Your task to perform on an android device: Search for pizza restaurants on Maps Image 0: 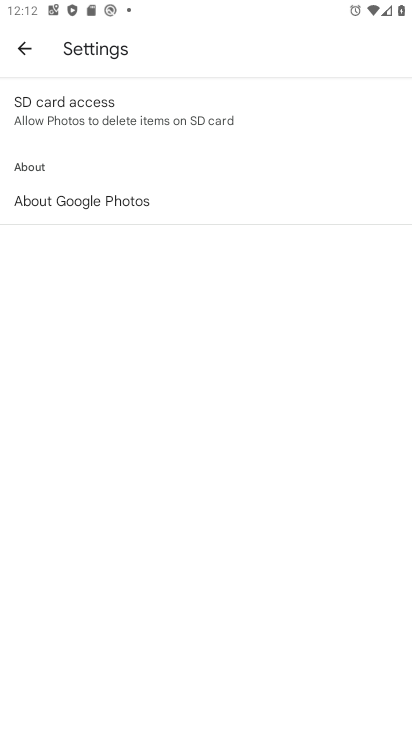
Step 0: press home button
Your task to perform on an android device: Search for pizza restaurants on Maps Image 1: 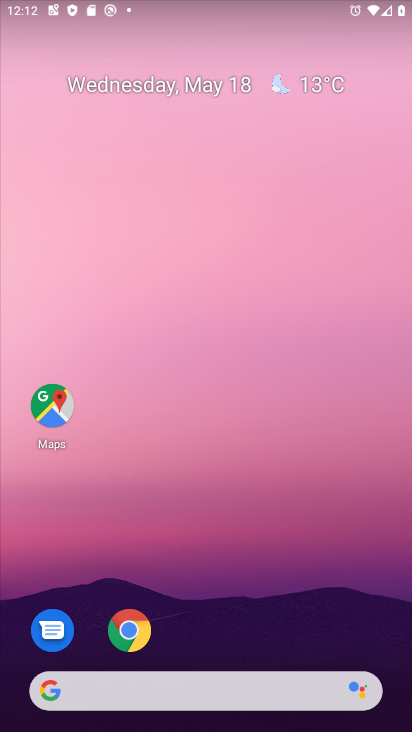
Step 1: drag from (228, 657) to (228, 179)
Your task to perform on an android device: Search for pizza restaurants on Maps Image 2: 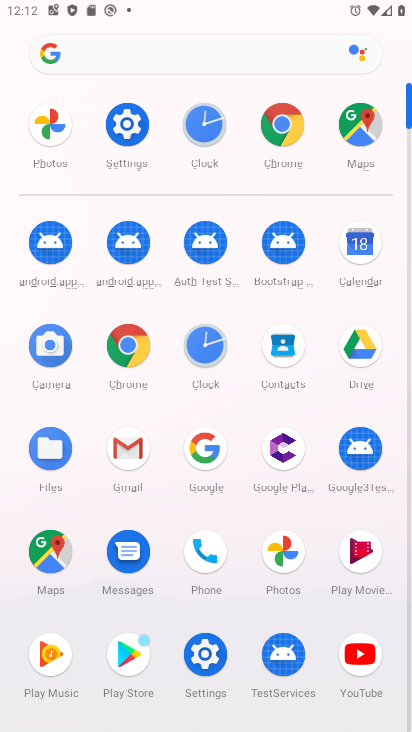
Step 2: click (51, 548)
Your task to perform on an android device: Search for pizza restaurants on Maps Image 3: 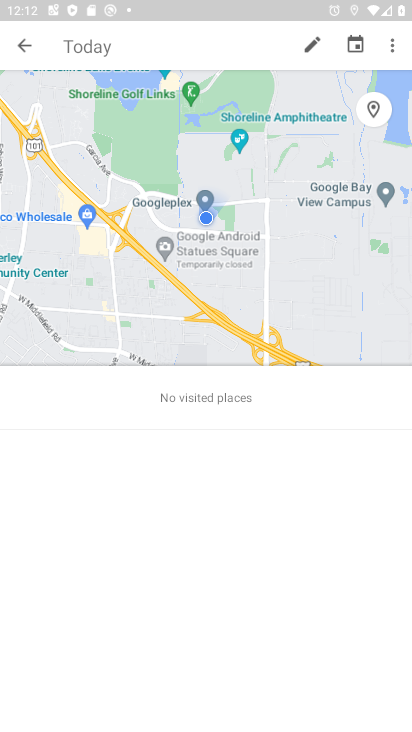
Step 3: click (19, 37)
Your task to perform on an android device: Search for pizza restaurants on Maps Image 4: 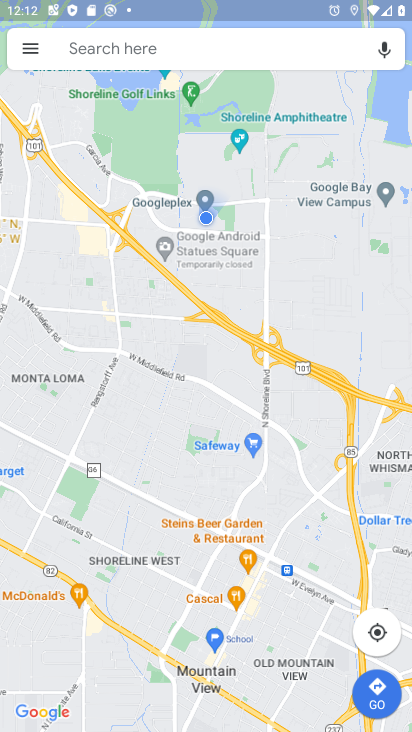
Step 4: click (219, 51)
Your task to perform on an android device: Search for pizza restaurants on Maps Image 5: 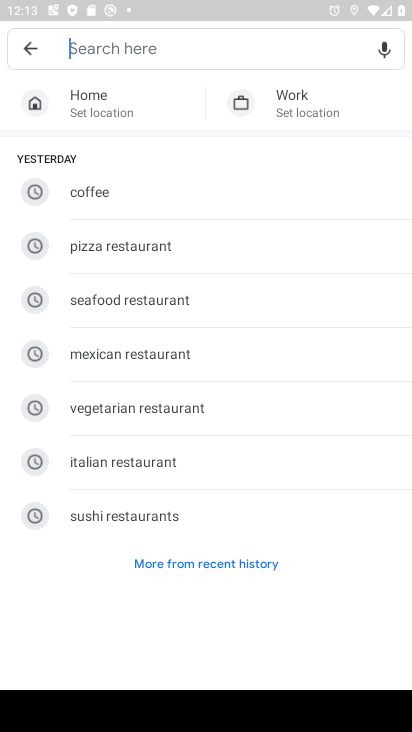
Step 5: type "pizza restaurants"
Your task to perform on an android device: Search for pizza restaurants on Maps Image 6: 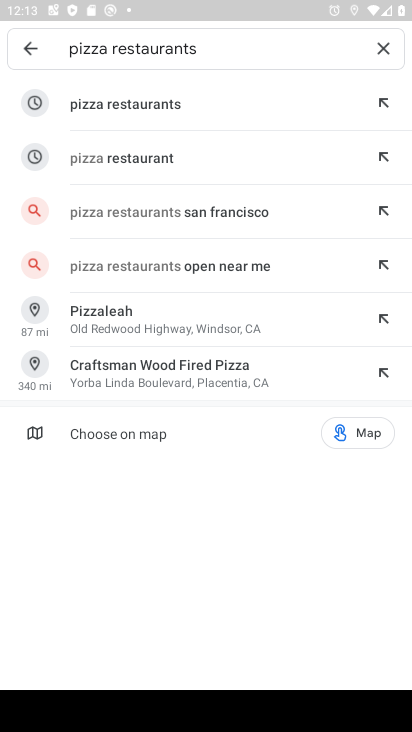
Step 6: click (108, 109)
Your task to perform on an android device: Search for pizza restaurants on Maps Image 7: 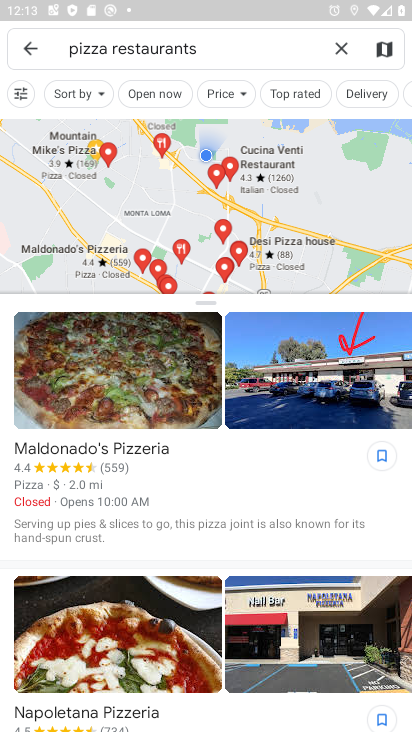
Step 7: task complete